Your task to perform on an android device: Go to wifi settings Image 0: 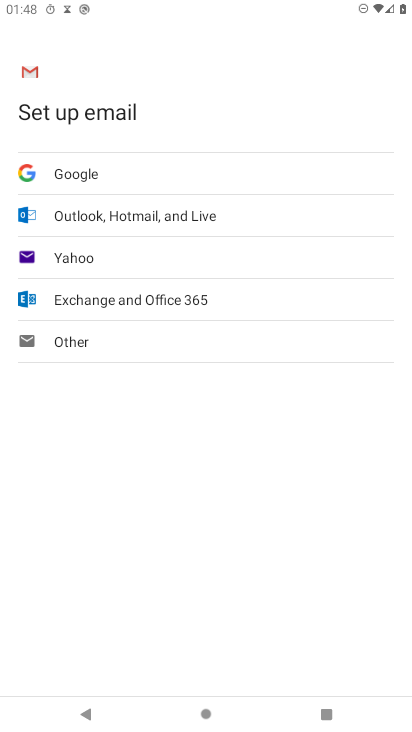
Step 0: press home button
Your task to perform on an android device: Go to wifi settings Image 1: 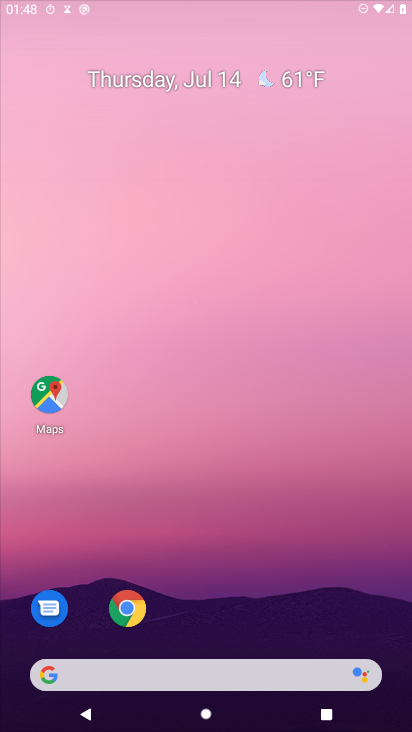
Step 1: drag from (264, 526) to (353, 75)
Your task to perform on an android device: Go to wifi settings Image 2: 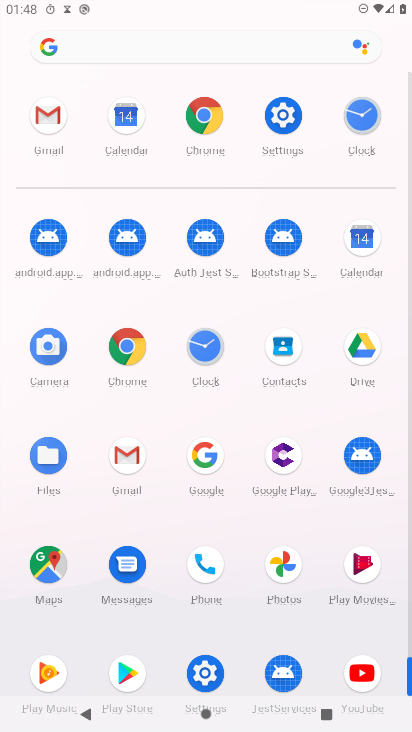
Step 2: click (269, 109)
Your task to perform on an android device: Go to wifi settings Image 3: 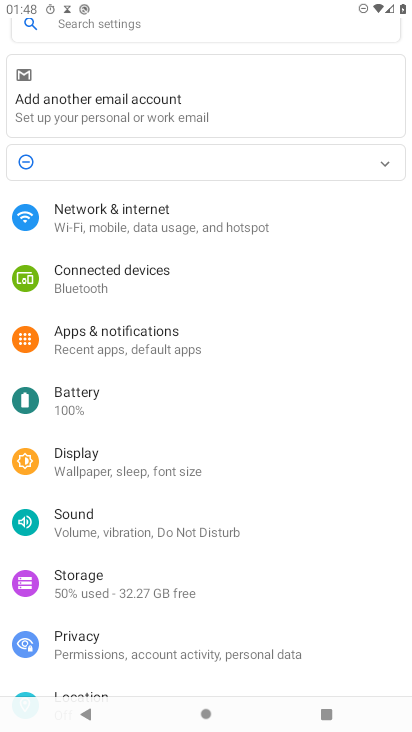
Step 3: click (160, 216)
Your task to perform on an android device: Go to wifi settings Image 4: 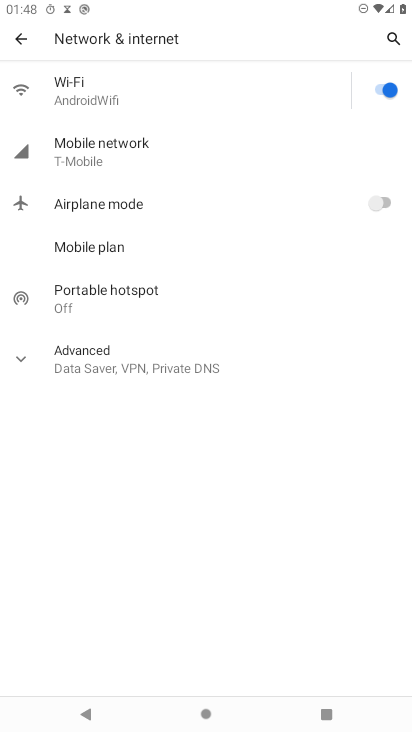
Step 4: click (91, 86)
Your task to perform on an android device: Go to wifi settings Image 5: 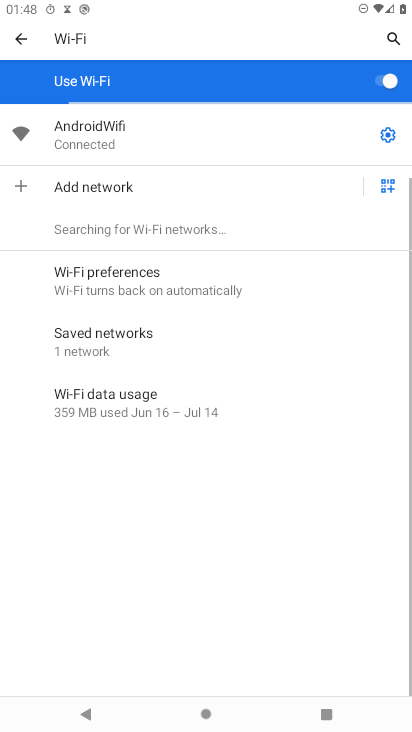
Step 5: task complete